Your task to perform on an android device: Go to notification settings Image 0: 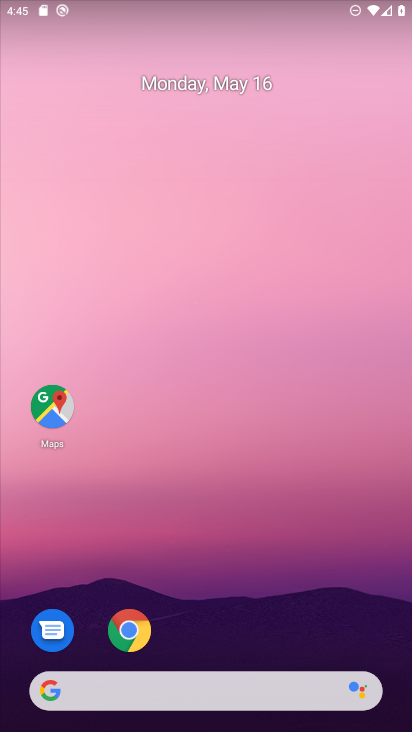
Step 0: press home button
Your task to perform on an android device: Go to notification settings Image 1: 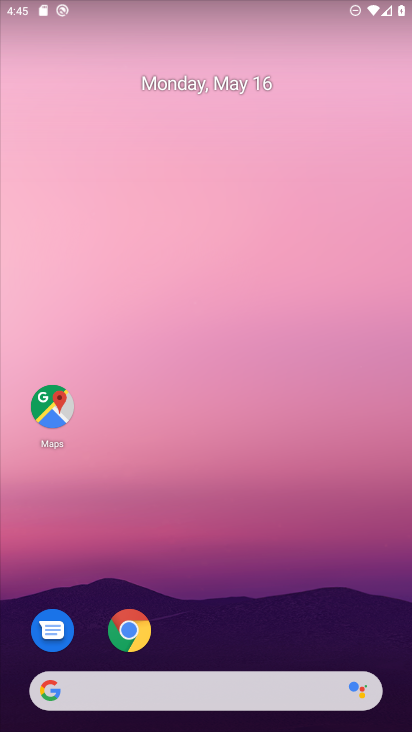
Step 1: drag from (230, 629) to (347, 9)
Your task to perform on an android device: Go to notification settings Image 2: 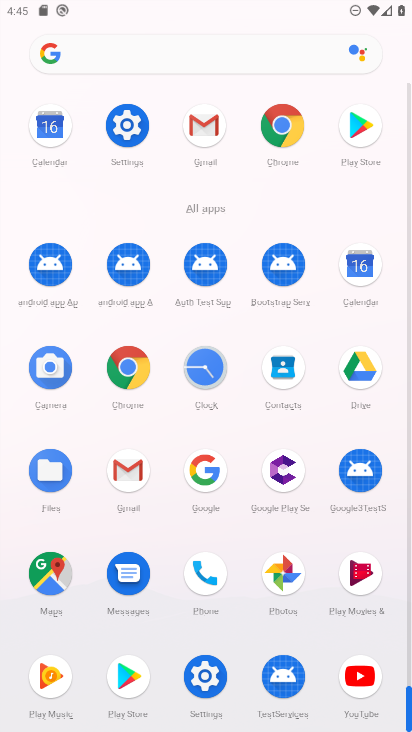
Step 2: click (153, 118)
Your task to perform on an android device: Go to notification settings Image 3: 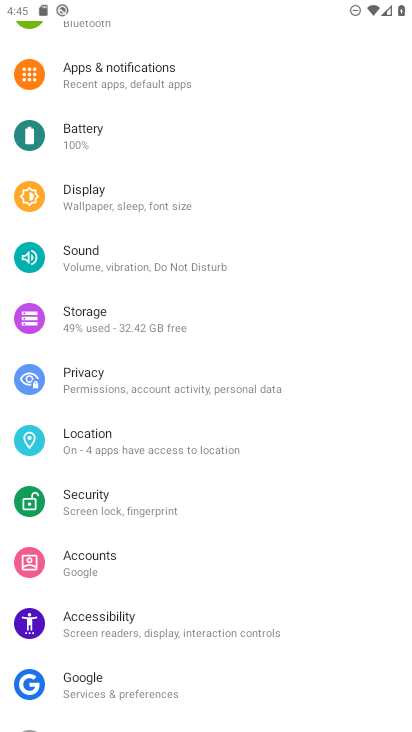
Step 3: click (192, 87)
Your task to perform on an android device: Go to notification settings Image 4: 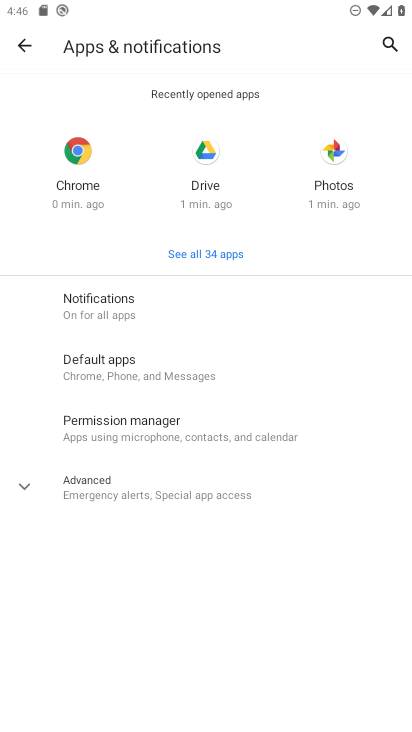
Step 4: click (146, 446)
Your task to perform on an android device: Go to notification settings Image 5: 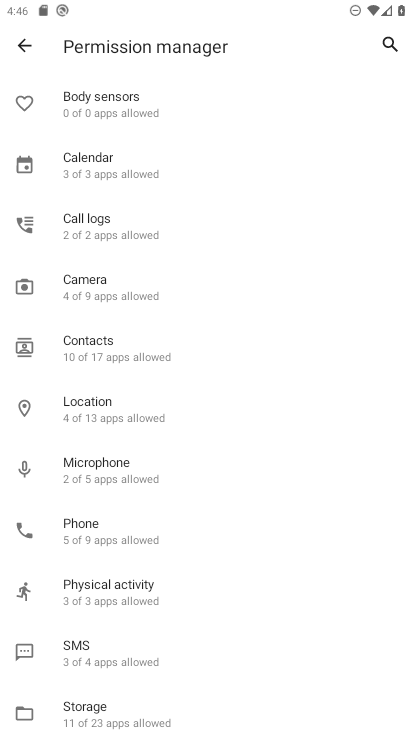
Step 5: click (24, 53)
Your task to perform on an android device: Go to notification settings Image 6: 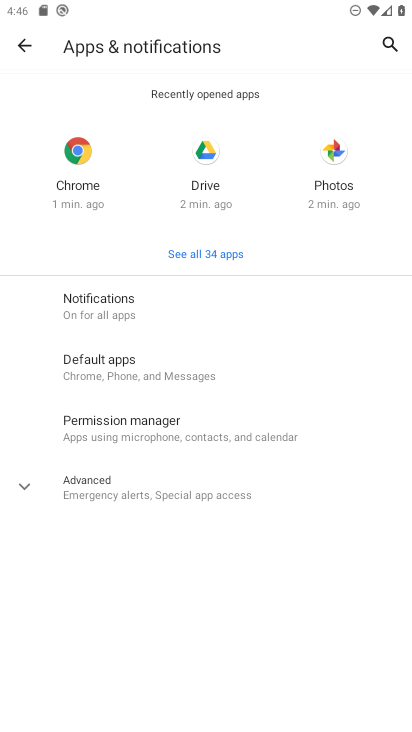
Step 6: click (65, 327)
Your task to perform on an android device: Go to notification settings Image 7: 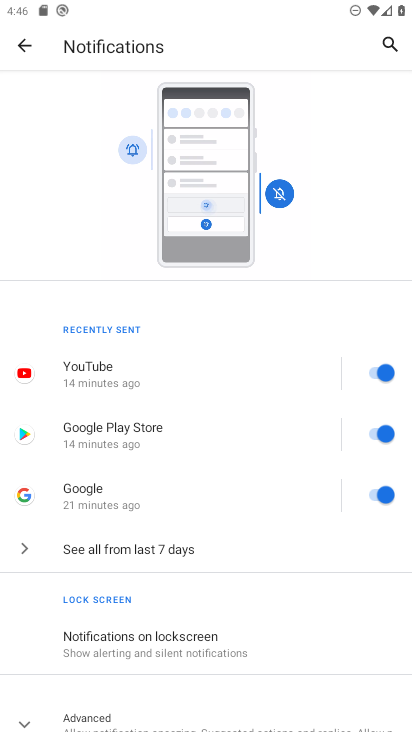
Step 7: click (270, 418)
Your task to perform on an android device: Go to notification settings Image 8: 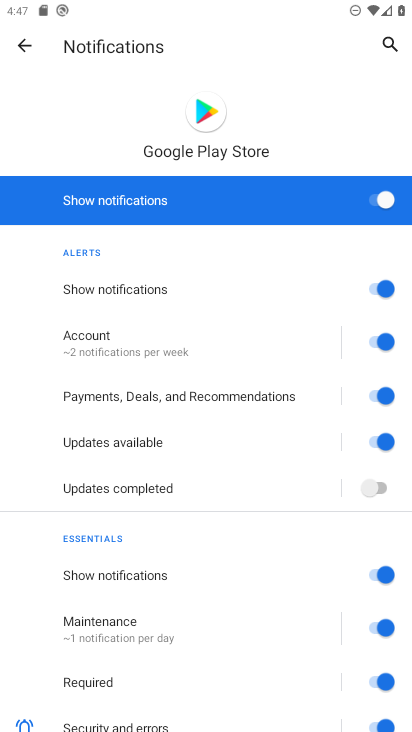
Step 8: click (26, 54)
Your task to perform on an android device: Go to notification settings Image 9: 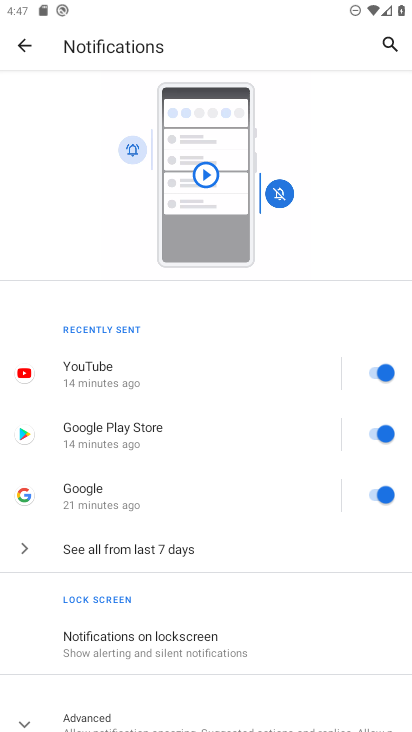
Step 9: click (391, 360)
Your task to perform on an android device: Go to notification settings Image 10: 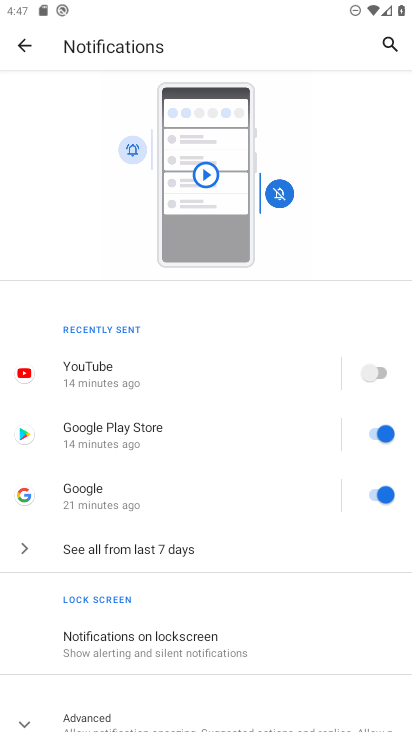
Step 10: click (376, 502)
Your task to perform on an android device: Go to notification settings Image 11: 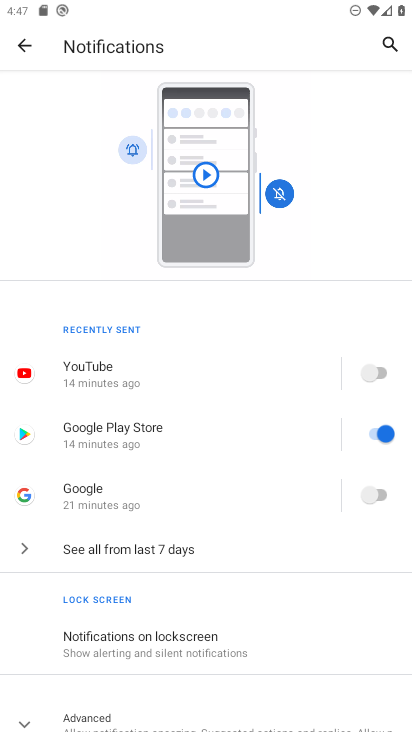
Step 11: drag from (341, 598) to (335, 92)
Your task to perform on an android device: Go to notification settings Image 12: 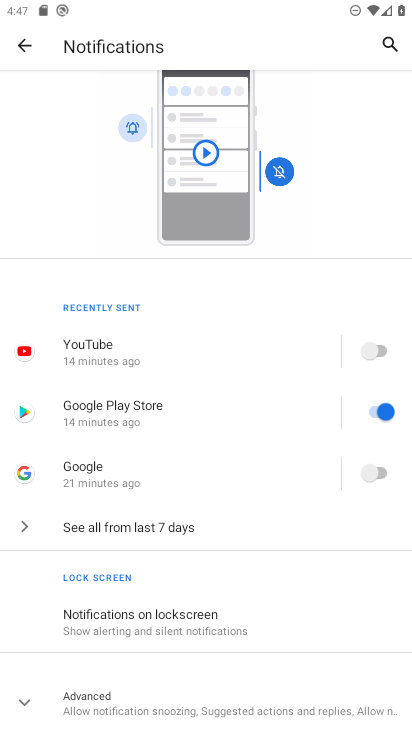
Step 12: click (284, 708)
Your task to perform on an android device: Go to notification settings Image 13: 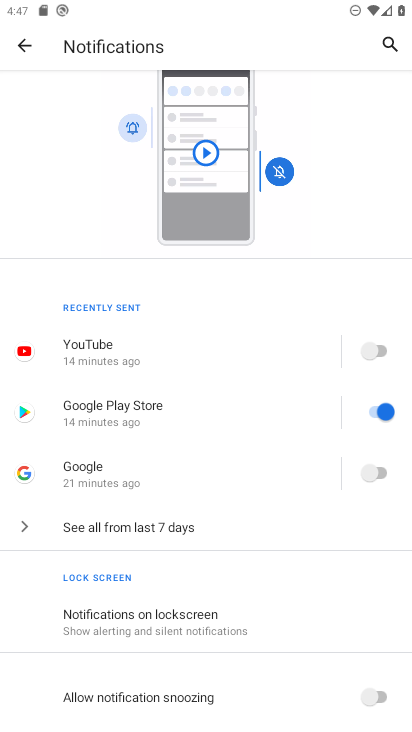
Step 13: drag from (277, 662) to (296, 164)
Your task to perform on an android device: Go to notification settings Image 14: 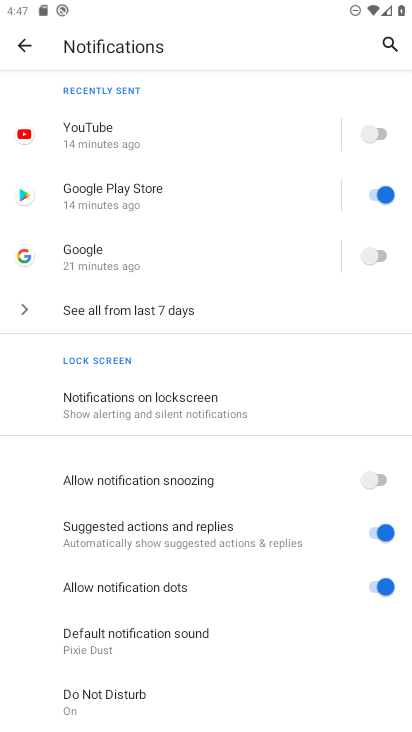
Step 14: click (366, 554)
Your task to perform on an android device: Go to notification settings Image 15: 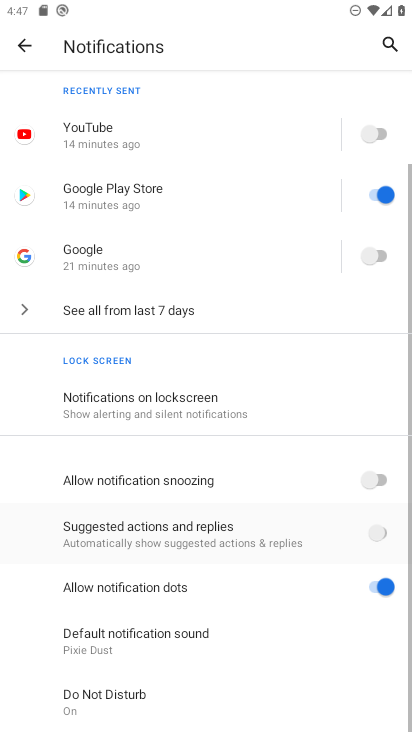
Step 15: click (374, 580)
Your task to perform on an android device: Go to notification settings Image 16: 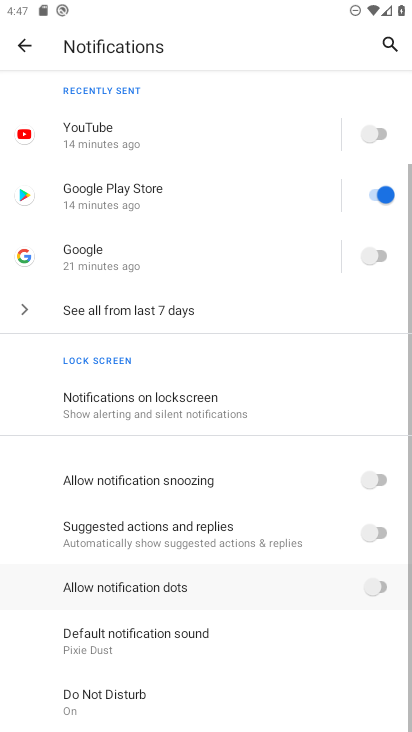
Step 16: click (389, 459)
Your task to perform on an android device: Go to notification settings Image 17: 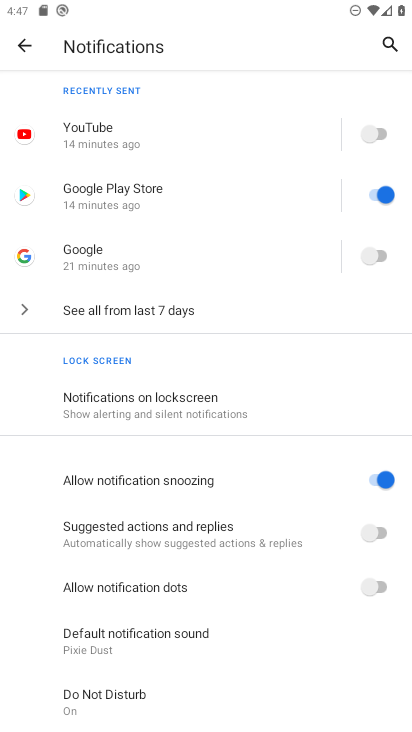
Step 17: task complete